Your task to perform on an android device: check google app version Image 0: 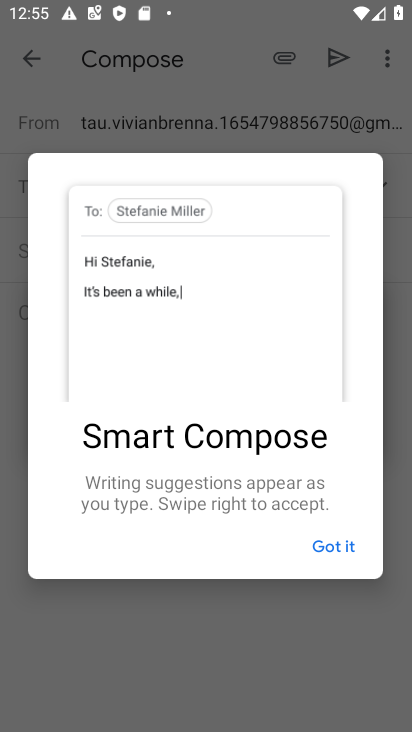
Step 0: press home button
Your task to perform on an android device: check google app version Image 1: 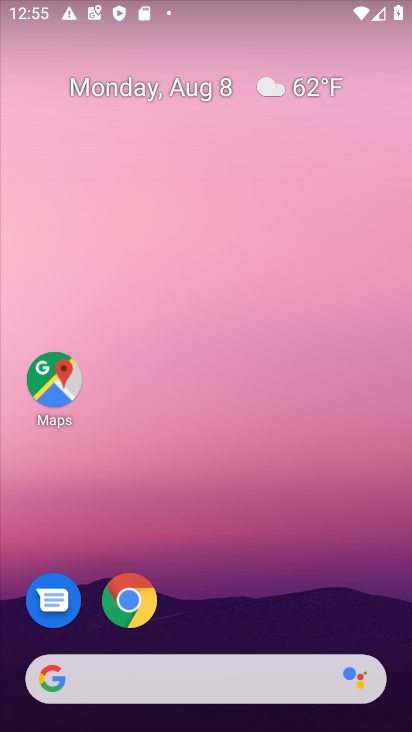
Step 1: drag from (209, 579) to (203, 133)
Your task to perform on an android device: check google app version Image 2: 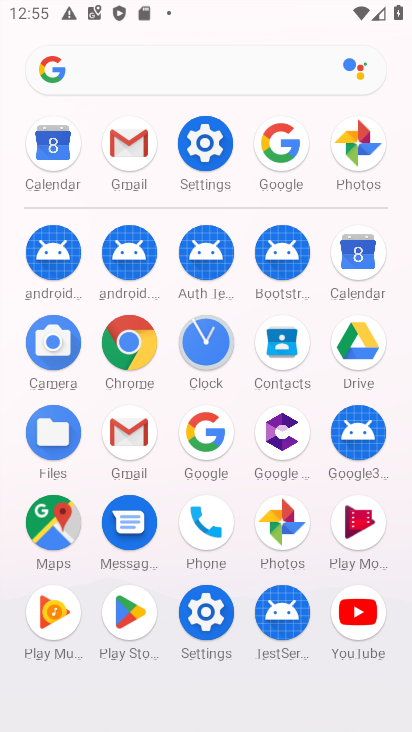
Step 2: click (286, 136)
Your task to perform on an android device: check google app version Image 3: 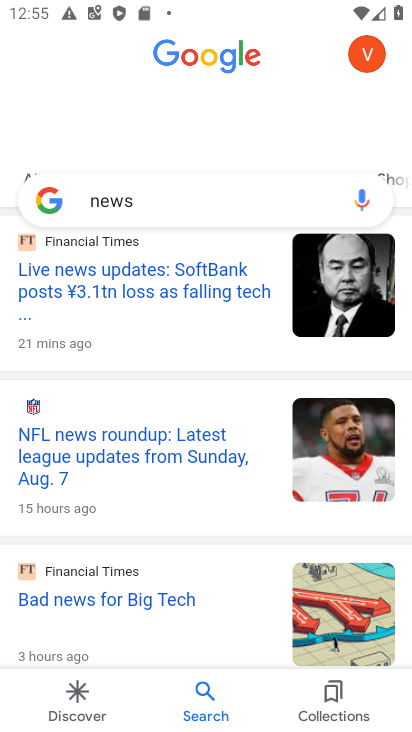
Step 3: click (362, 63)
Your task to perform on an android device: check google app version Image 4: 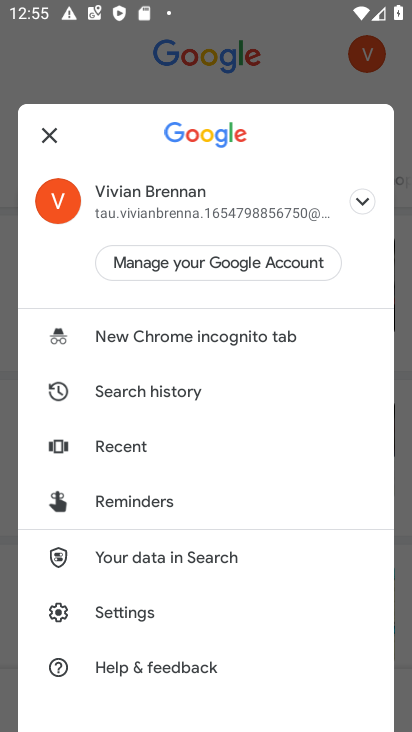
Step 4: click (136, 612)
Your task to perform on an android device: check google app version Image 5: 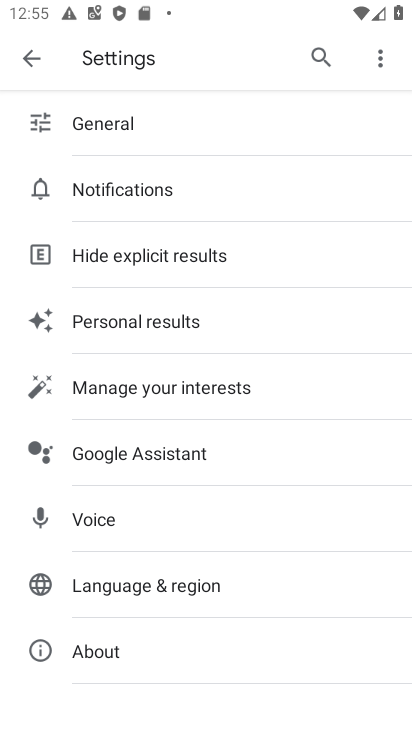
Step 5: click (114, 657)
Your task to perform on an android device: check google app version Image 6: 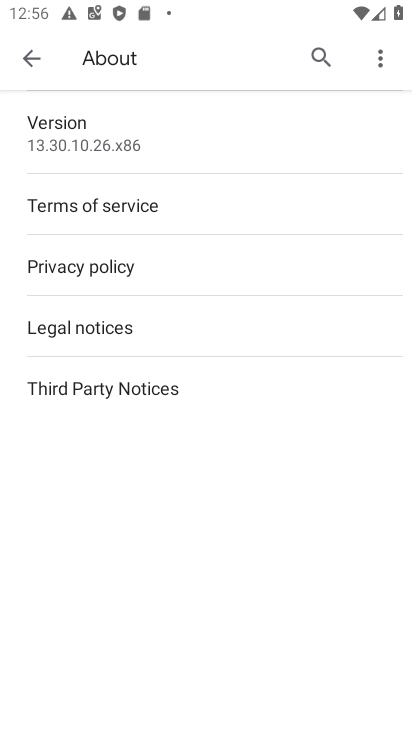
Step 6: click (225, 137)
Your task to perform on an android device: check google app version Image 7: 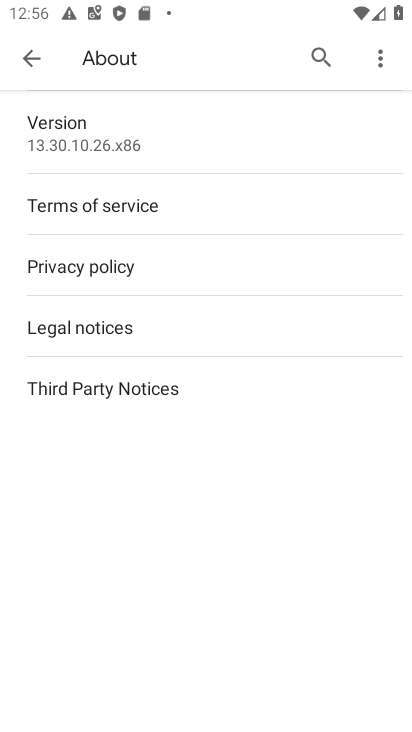
Step 7: click (113, 148)
Your task to perform on an android device: check google app version Image 8: 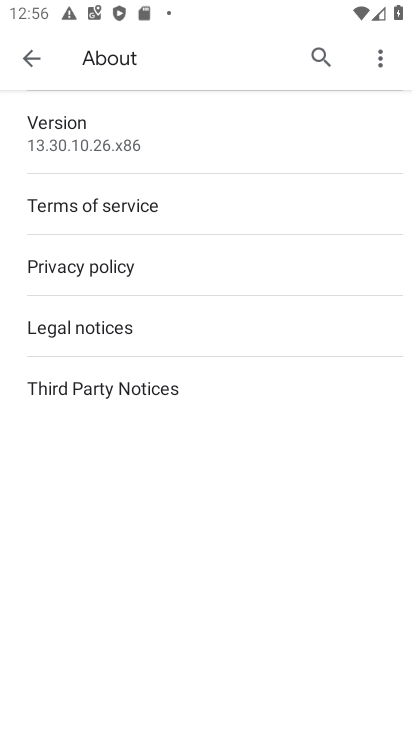
Step 8: task complete